Your task to perform on an android device: toggle improve location accuracy Image 0: 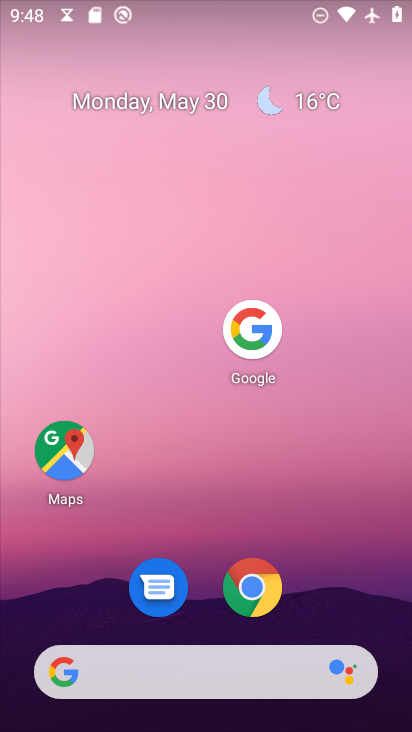
Step 0: drag from (181, 674) to (268, 174)
Your task to perform on an android device: toggle improve location accuracy Image 1: 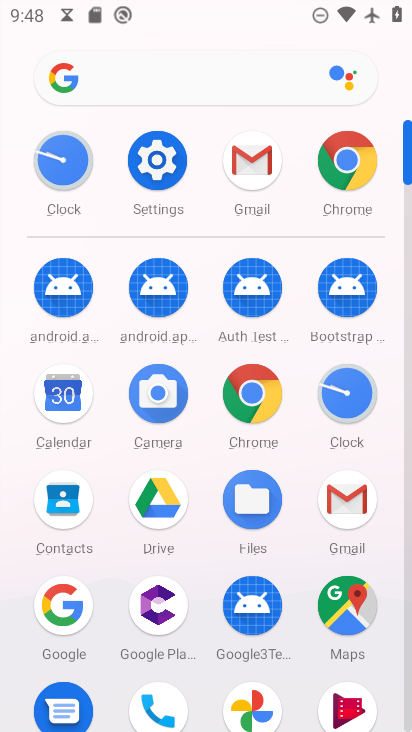
Step 1: click (157, 170)
Your task to perform on an android device: toggle improve location accuracy Image 2: 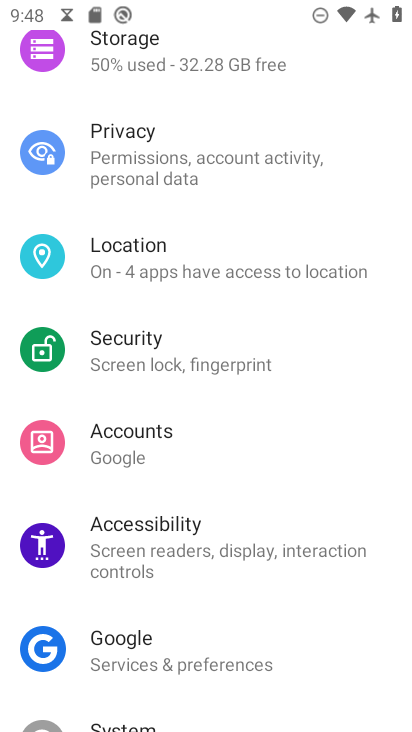
Step 2: drag from (202, 640) to (320, 220)
Your task to perform on an android device: toggle improve location accuracy Image 3: 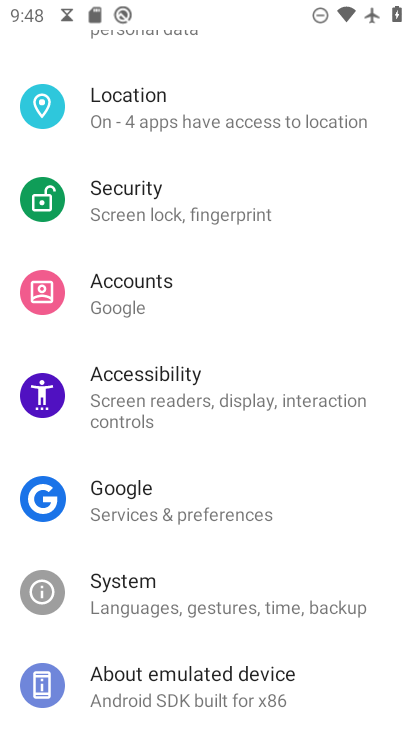
Step 3: click (145, 106)
Your task to perform on an android device: toggle improve location accuracy Image 4: 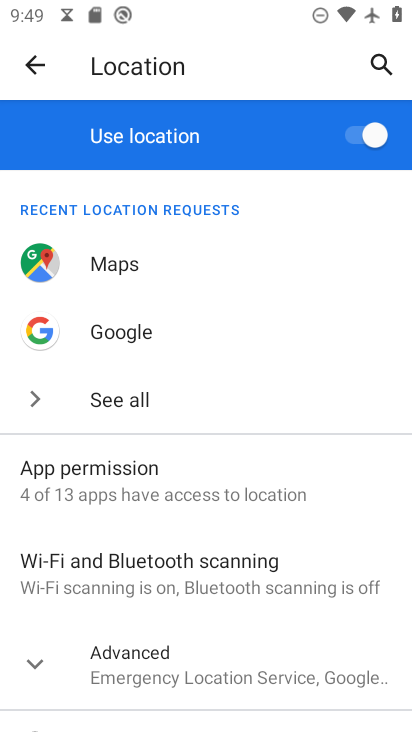
Step 4: click (173, 663)
Your task to perform on an android device: toggle improve location accuracy Image 5: 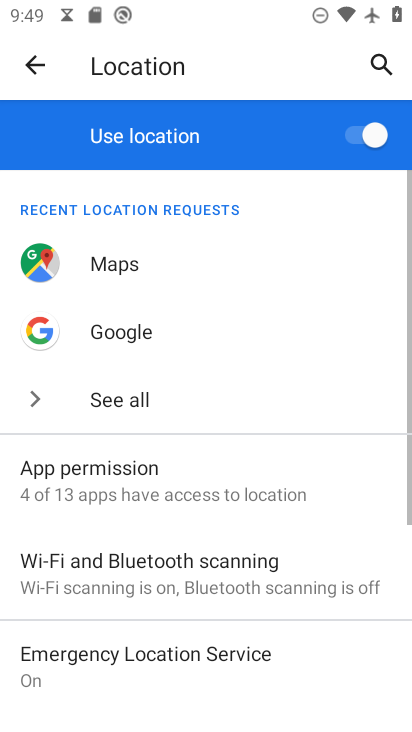
Step 5: drag from (173, 663) to (265, 222)
Your task to perform on an android device: toggle improve location accuracy Image 6: 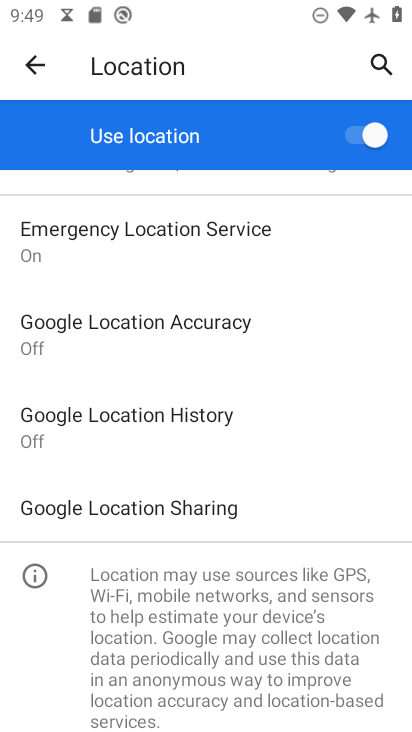
Step 6: click (157, 318)
Your task to perform on an android device: toggle improve location accuracy Image 7: 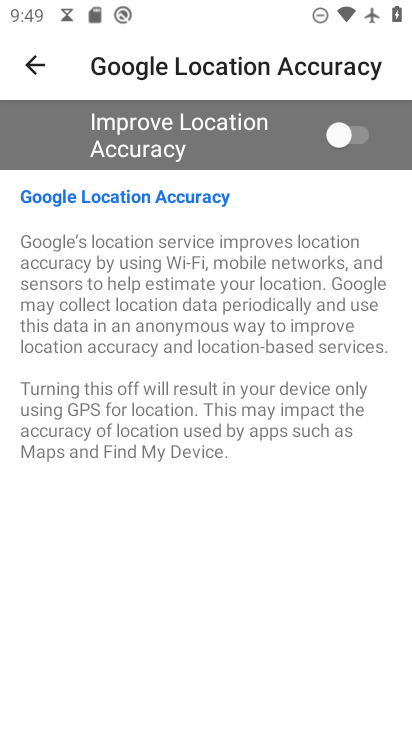
Step 7: click (353, 135)
Your task to perform on an android device: toggle improve location accuracy Image 8: 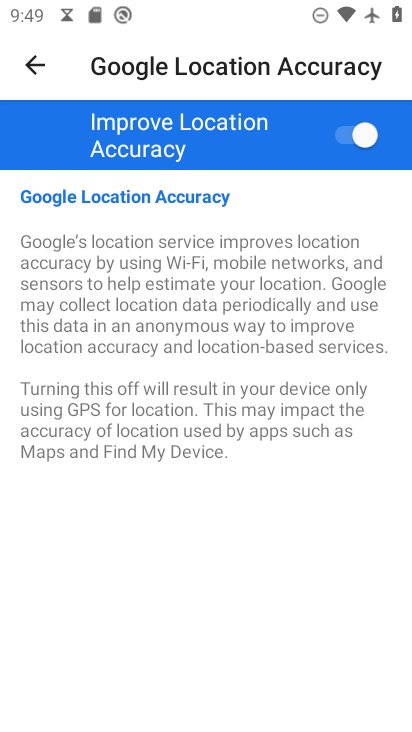
Step 8: task complete